Your task to perform on an android device: snooze an email in the gmail app Image 0: 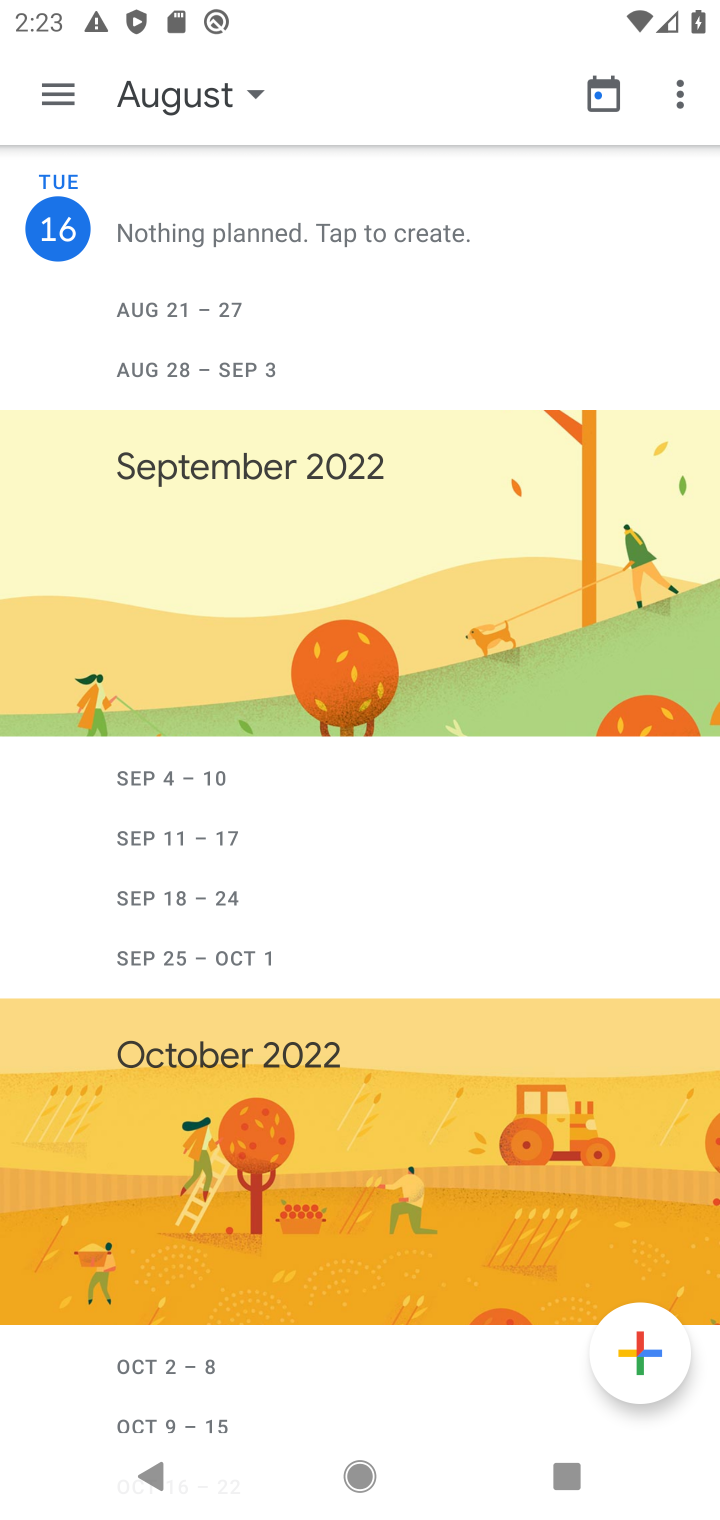
Step 0: press home button
Your task to perform on an android device: snooze an email in the gmail app Image 1: 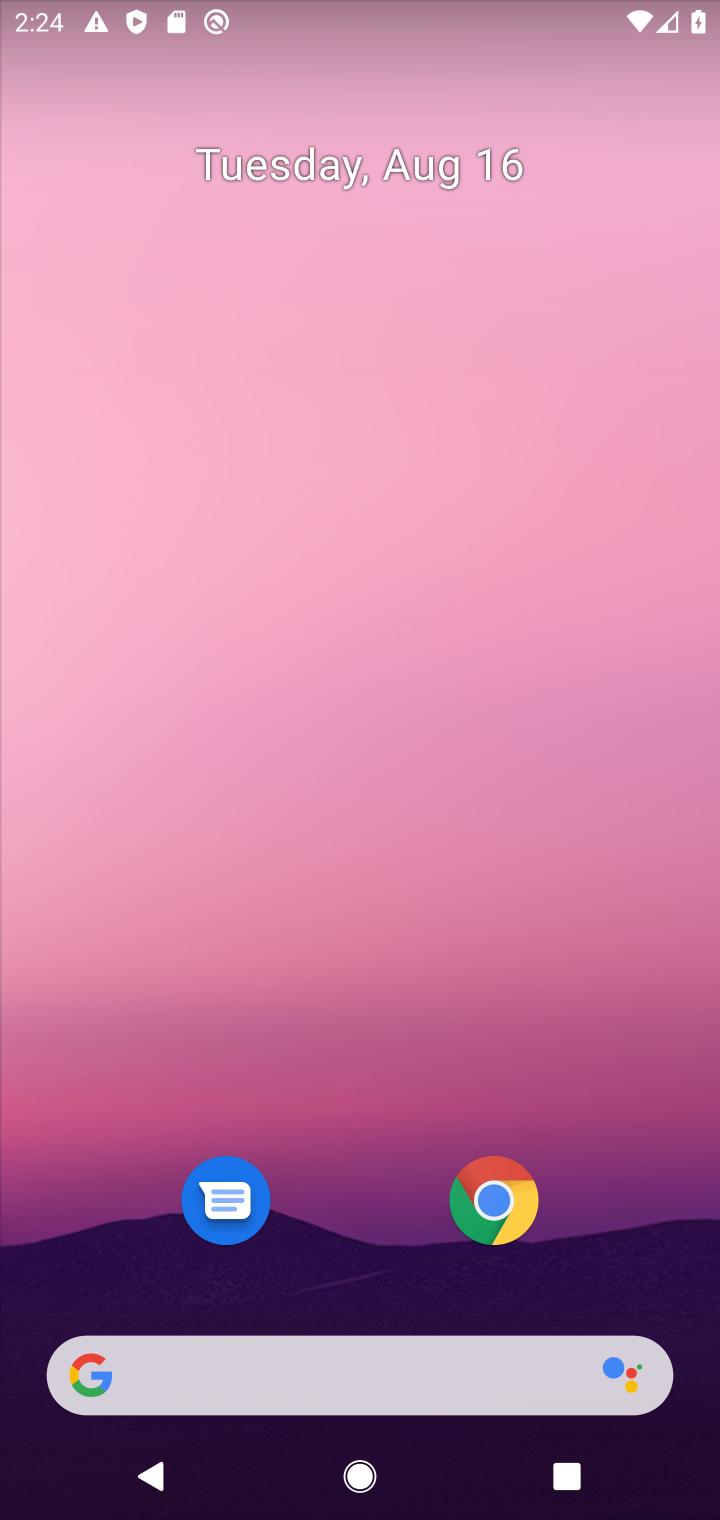
Step 1: task complete